Your task to perform on an android device: Open network settings Image 0: 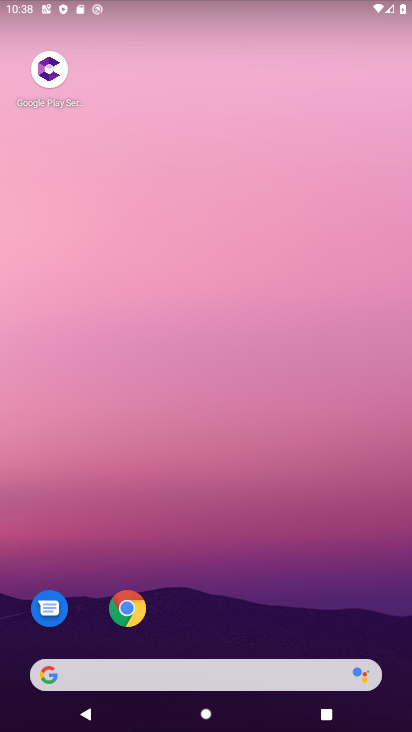
Step 0: drag from (377, 629) to (216, 13)
Your task to perform on an android device: Open network settings Image 1: 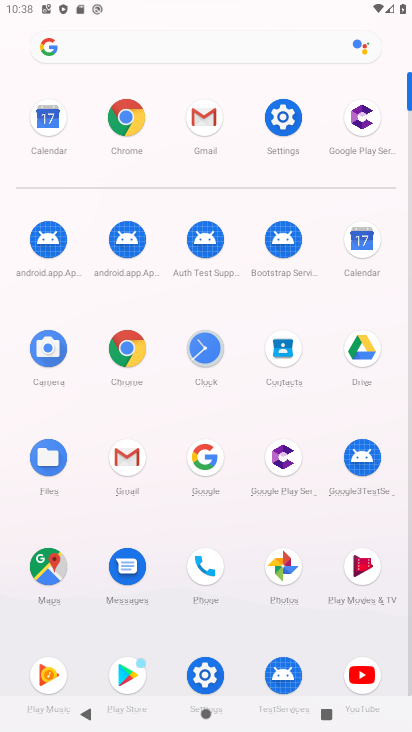
Step 1: click (288, 122)
Your task to perform on an android device: Open network settings Image 2: 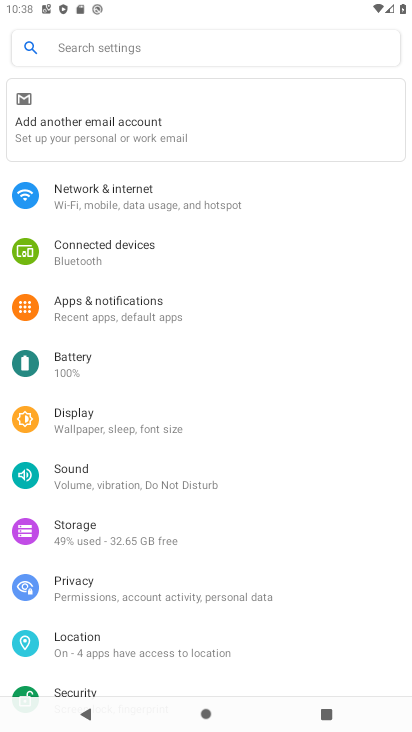
Step 2: click (67, 191)
Your task to perform on an android device: Open network settings Image 3: 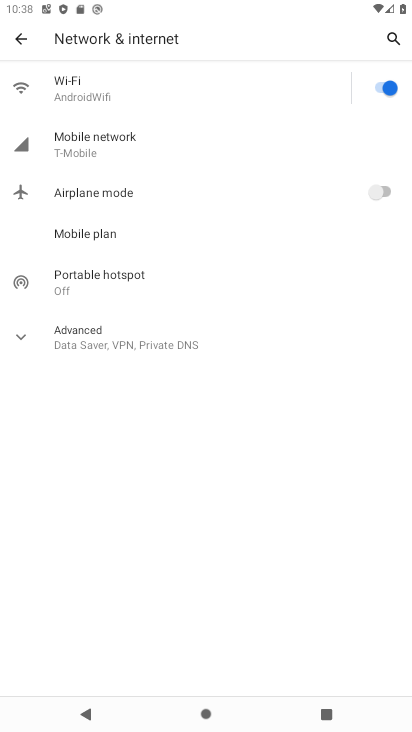
Step 3: task complete